Your task to perform on an android device: open sync settings in chrome Image 0: 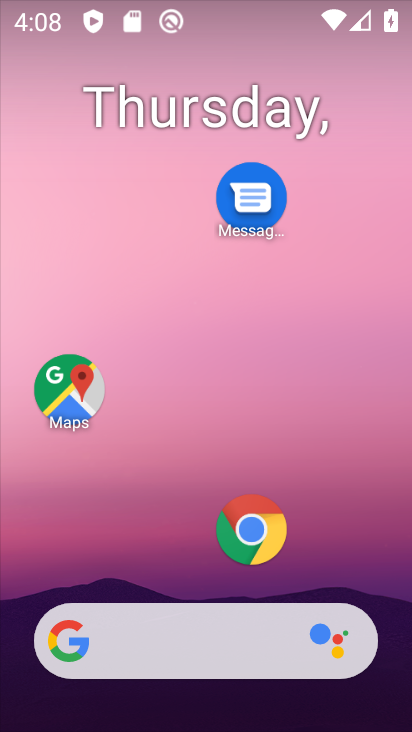
Step 0: drag from (166, 523) to (244, 56)
Your task to perform on an android device: open sync settings in chrome Image 1: 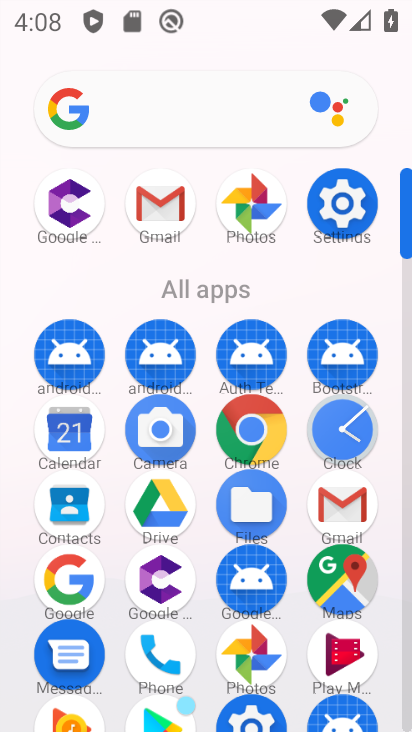
Step 1: click (257, 443)
Your task to perform on an android device: open sync settings in chrome Image 2: 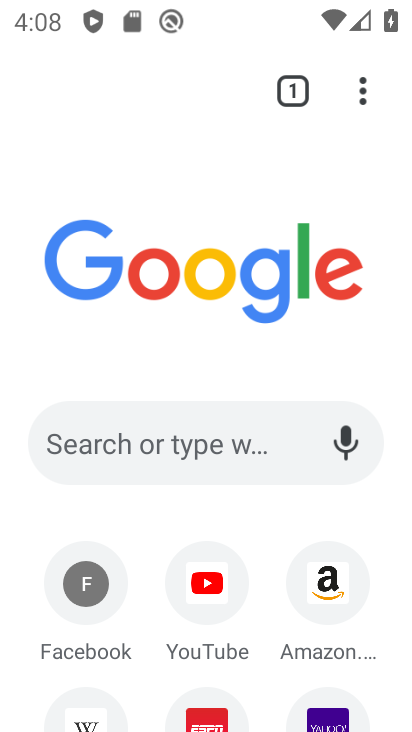
Step 2: drag from (367, 69) to (159, 544)
Your task to perform on an android device: open sync settings in chrome Image 3: 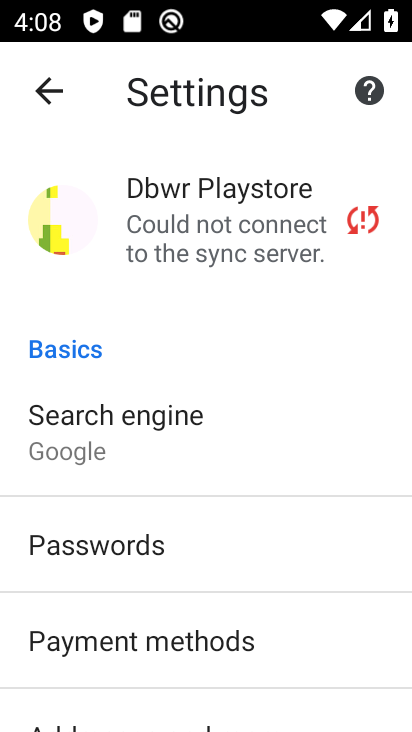
Step 3: click (199, 235)
Your task to perform on an android device: open sync settings in chrome Image 4: 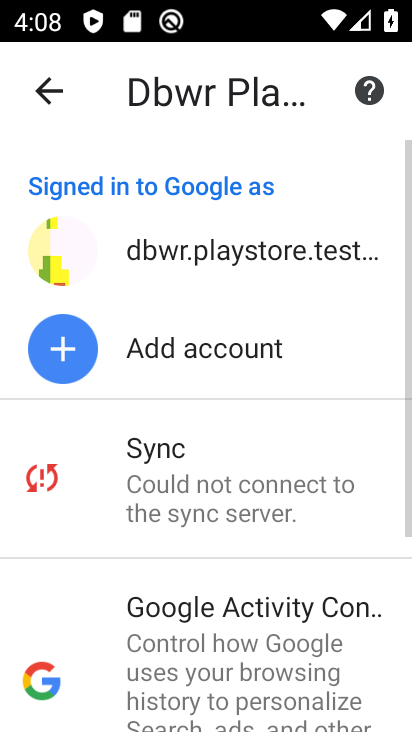
Step 4: task complete